Your task to perform on an android device: visit the assistant section in the google photos Image 0: 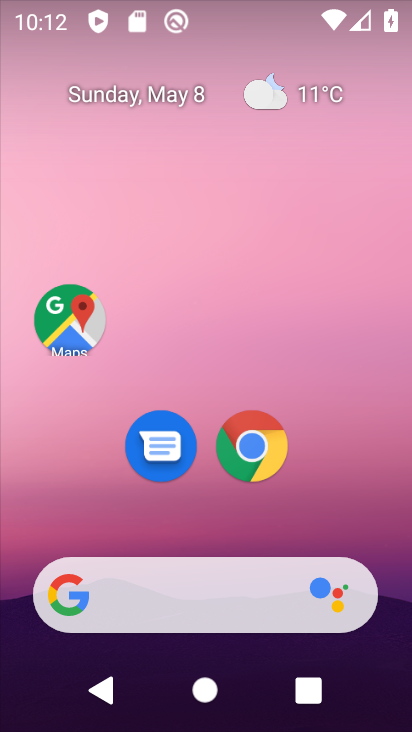
Step 0: drag from (318, 509) to (412, 6)
Your task to perform on an android device: visit the assistant section in the google photos Image 1: 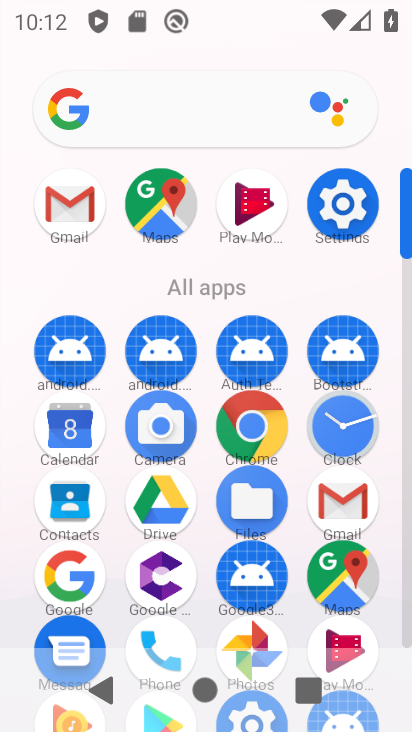
Step 1: click (254, 633)
Your task to perform on an android device: visit the assistant section in the google photos Image 2: 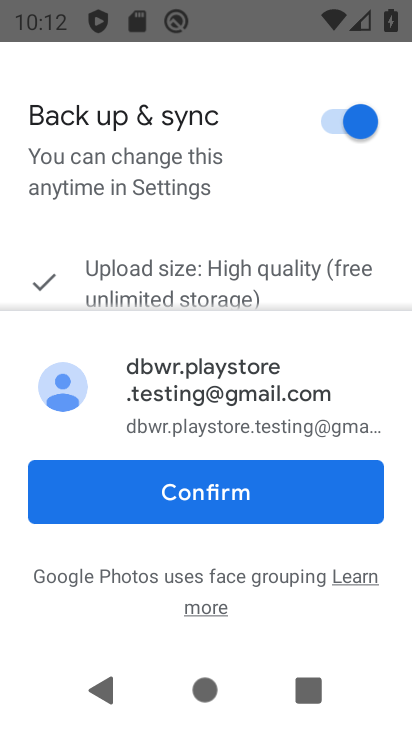
Step 2: click (245, 494)
Your task to perform on an android device: visit the assistant section in the google photos Image 3: 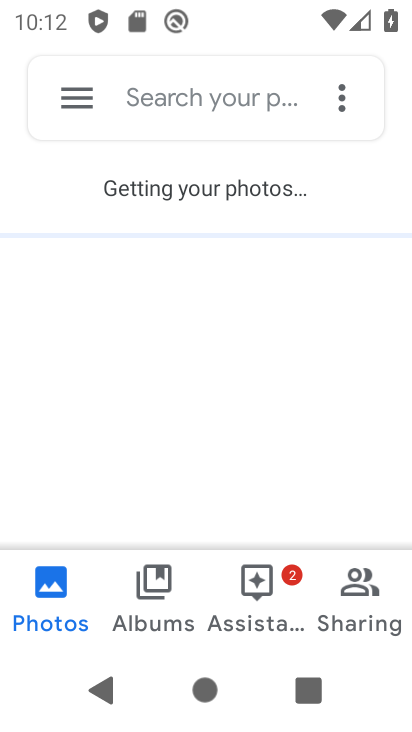
Step 3: click (260, 592)
Your task to perform on an android device: visit the assistant section in the google photos Image 4: 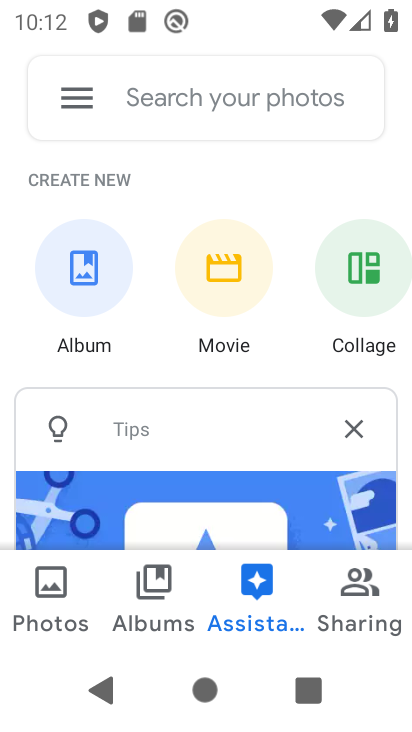
Step 4: task complete